Your task to perform on an android device: Open Yahoo.com Image 0: 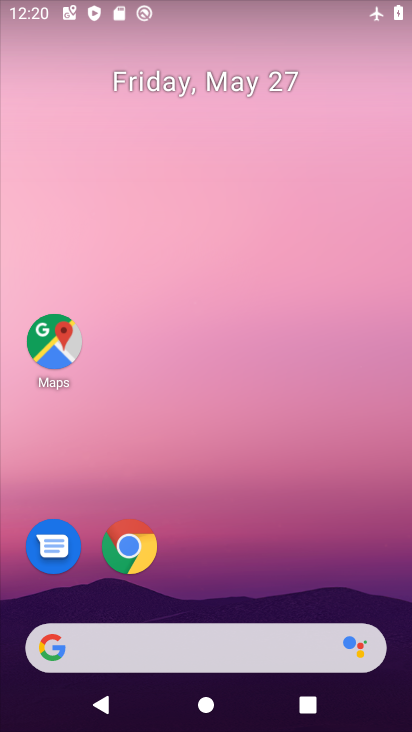
Step 0: drag from (243, 567) to (175, 141)
Your task to perform on an android device: Open Yahoo.com Image 1: 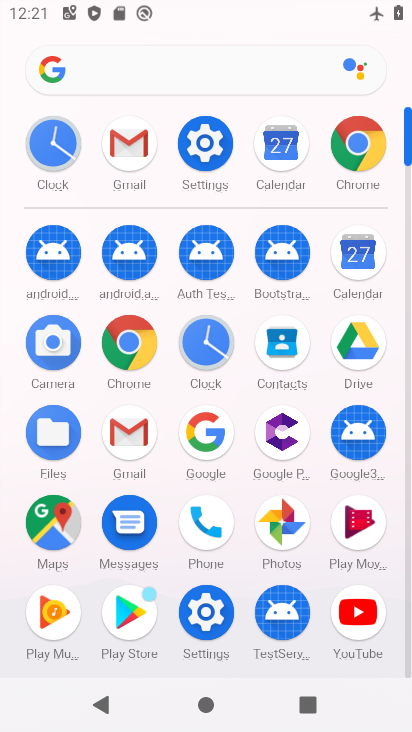
Step 1: click (353, 140)
Your task to perform on an android device: Open Yahoo.com Image 2: 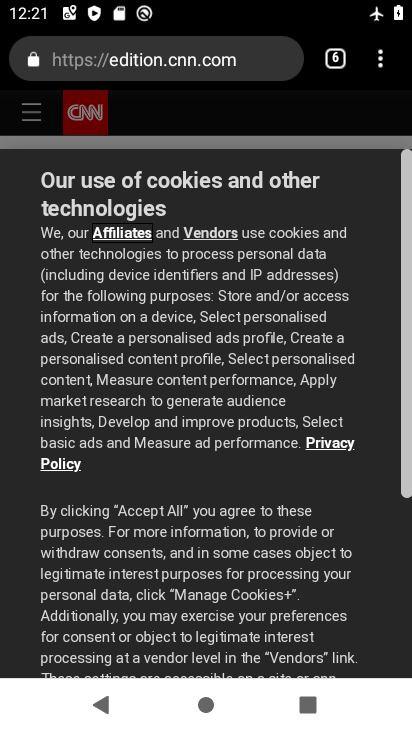
Step 2: click (378, 56)
Your task to perform on an android device: Open Yahoo.com Image 3: 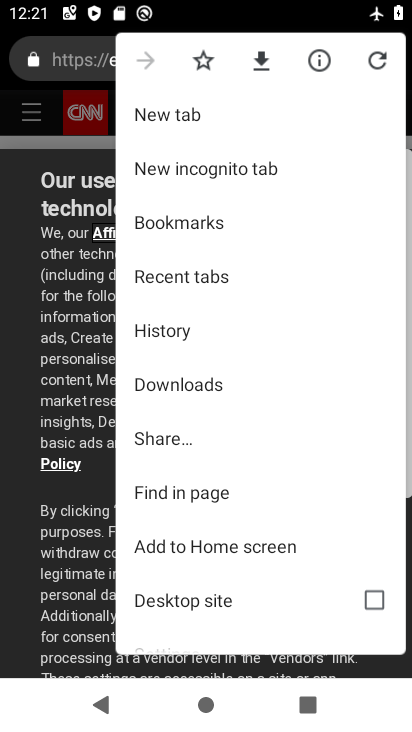
Step 3: click (179, 113)
Your task to perform on an android device: Open Yahoo.com Image 4: 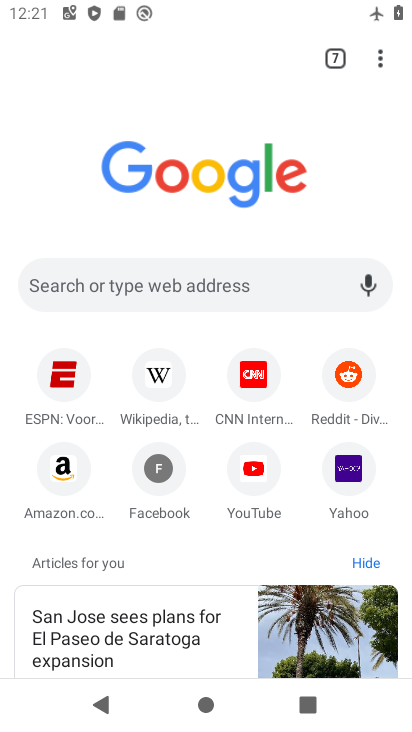
Step 4: click (362, 469)
Your task to perform on an android device: Open Yahoo.com Image 5: 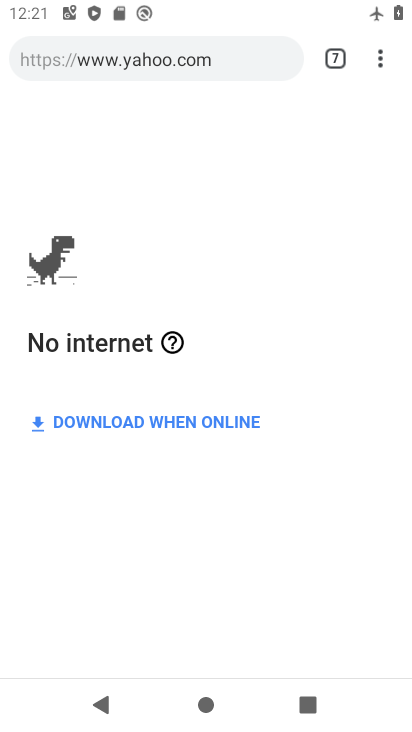
Step 5: task complete